Your task to perform on an android device: change text size in settings app Image 0: 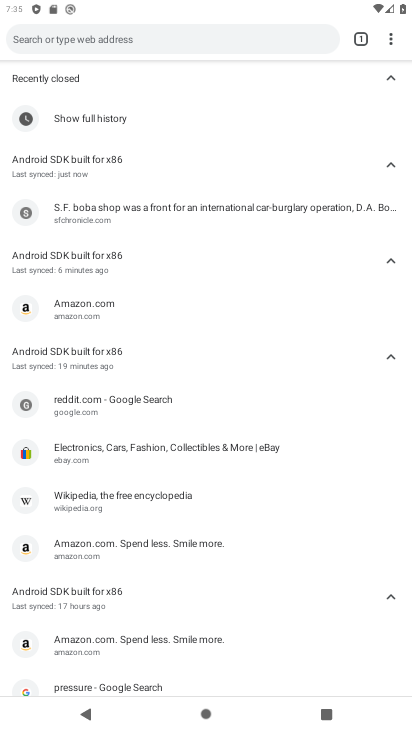
Step 0: press home button
Your task to perform on an android device: change text size in settings app Image 1: 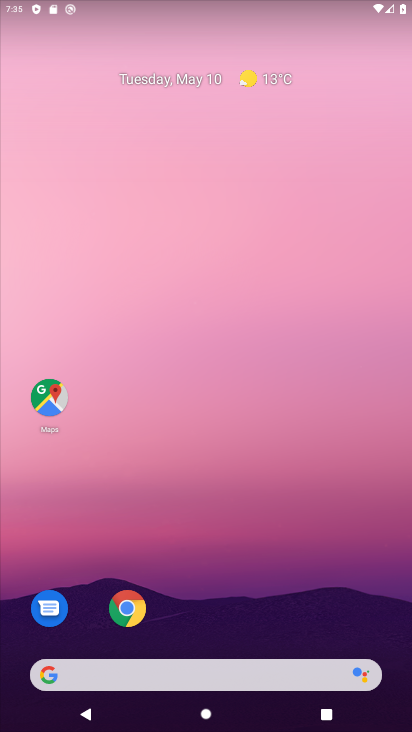
Step 1: drag from (146, 671) to (262, 195)
Your task to perform on an android device: change text size in settings app Image 2: 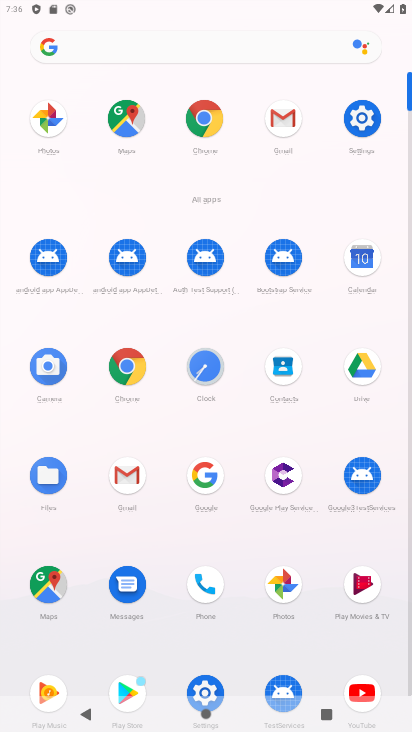
Step 2: click (355, 126)
Your task to perform on an android device: change text size in settings app Image 3: 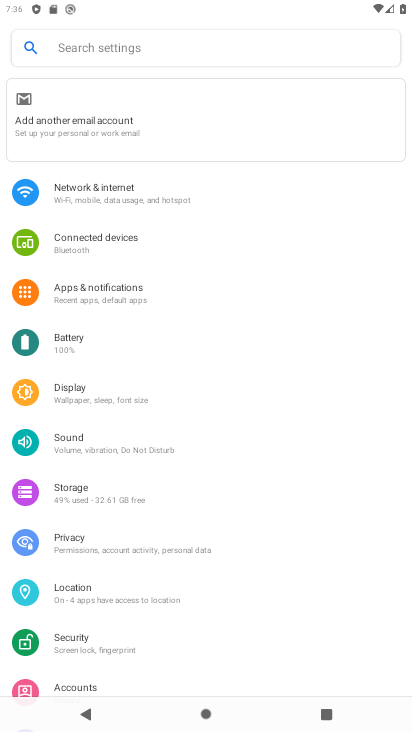
Step 3: click (105, 391)
Your task to perform on an android device: change text size in settings app Image 4: 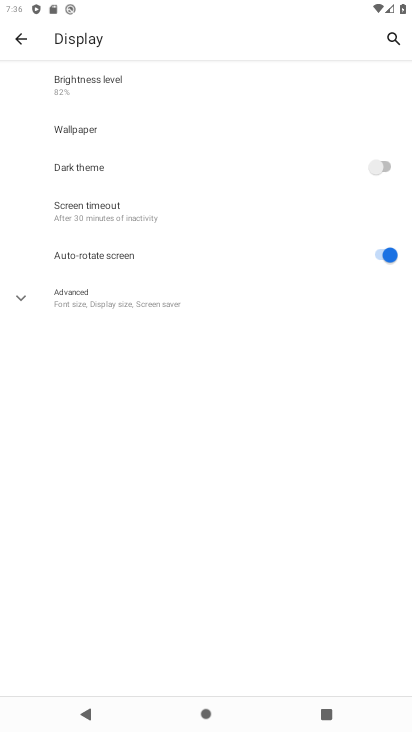
Step 4: click (89, 297)
Your task to perform on an android device: change text size in settings app Image 5: 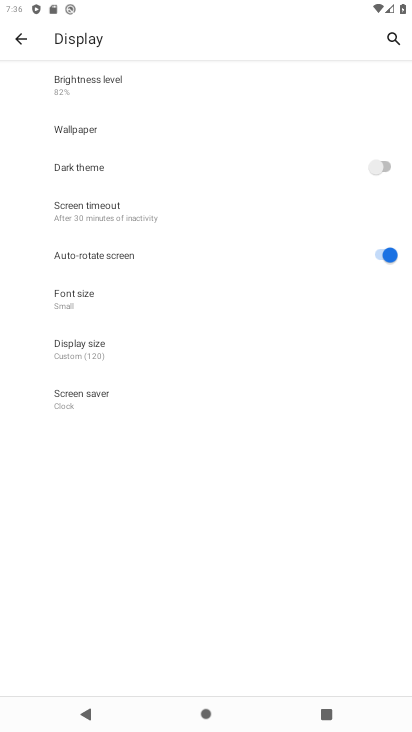
Step 5: click (82, 297)
Your task to perform on an android device: change text size in settings app Image 6: 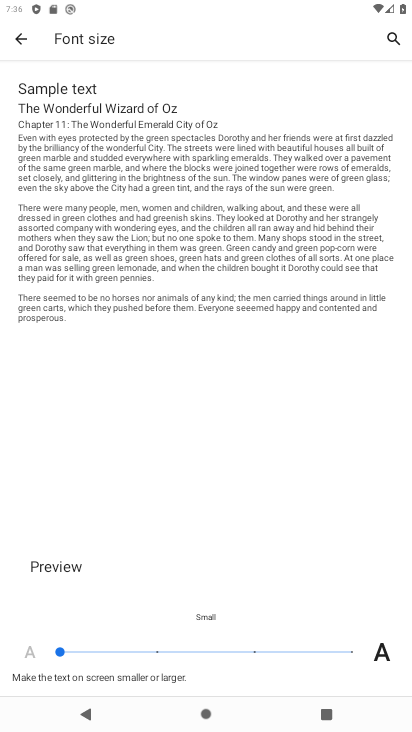
Step 6: click (254, 652)
Your task to perform on an android device: change text size in settings app Image 7: 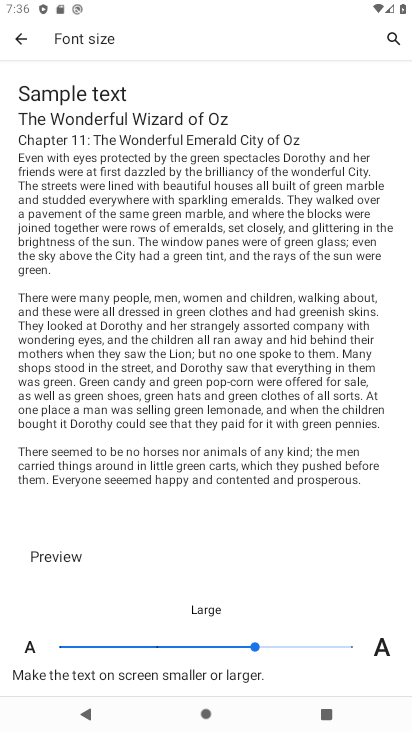
Step 7: click (351, 647)
Your task to perform on an android device: change text size in settings app Image 8: 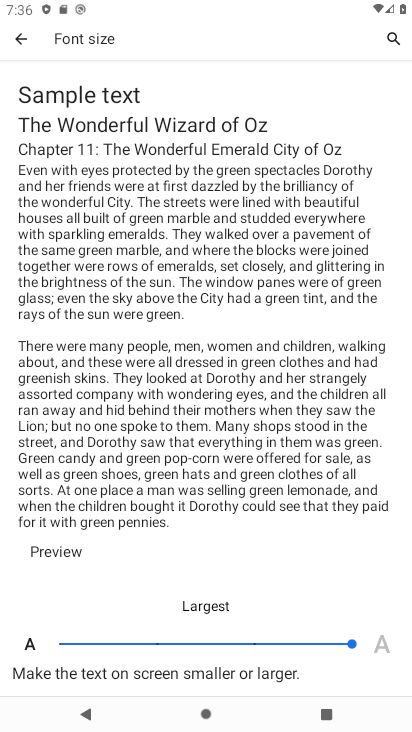
Step 8: task complete